Your task to perform on an android device: Go to ESPN.com Image 0: 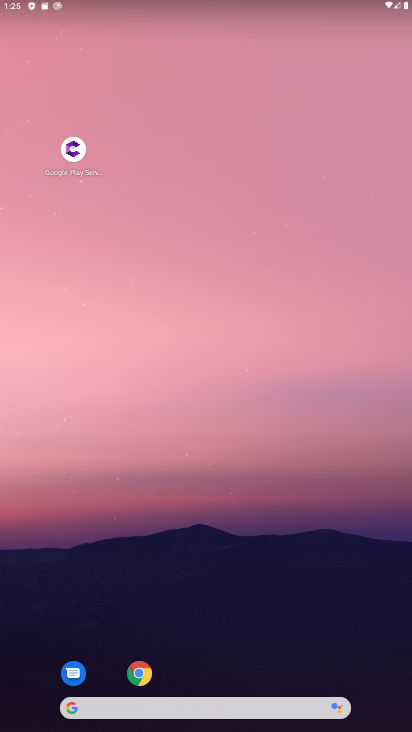
Step 0: drag from (295, 566) to (206, 44)
Your task to perform on an android device: Go to ESPN.com Image 1: 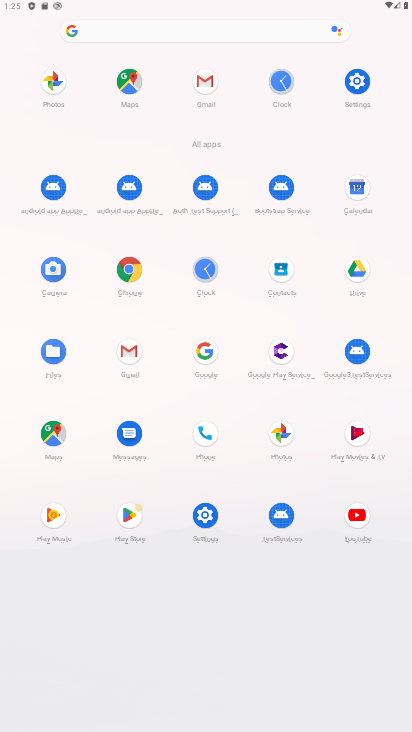
Step 1: click (127, 272)
Your task to perform on an android device: Go to ESPN.com Image 2: 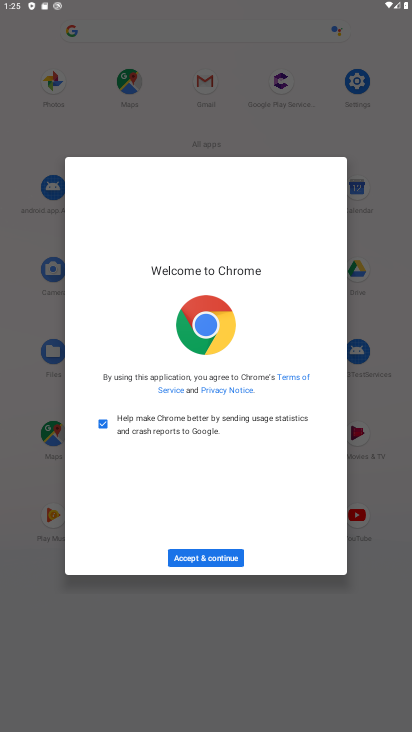
Step 2: click (234, 551)
Your task to perform on an android device: Go to ESPN.com Image 3: 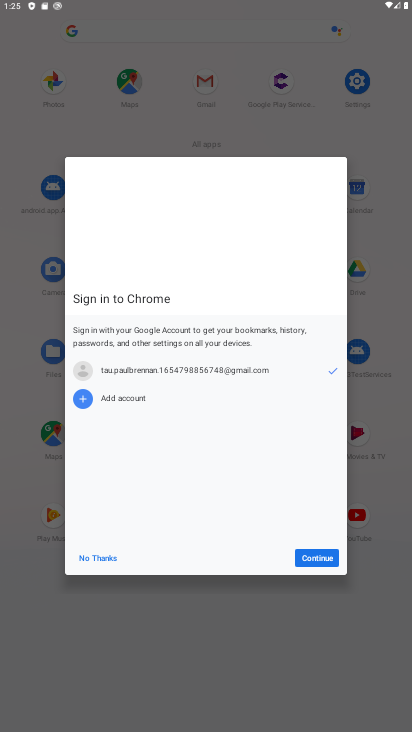
Step 3: click (104, 550)
Your task to perform on an android device: Go to ESPN.com Image 4: 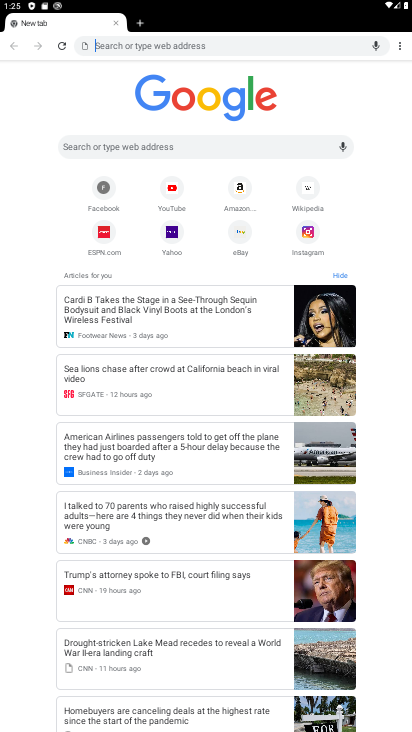
Step 4: click (79, 243)
Your task to perform on an android device: Go to ESPN.com Image 5: 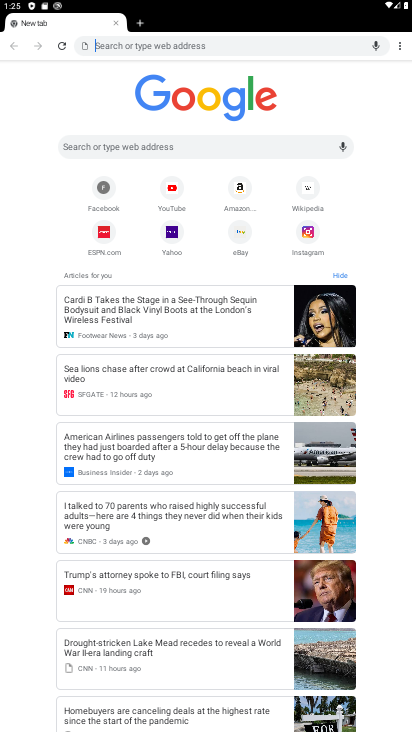
Step 5: click (106, 241)
Your task to perform on an android device: Go to ESPN.com Image 6: 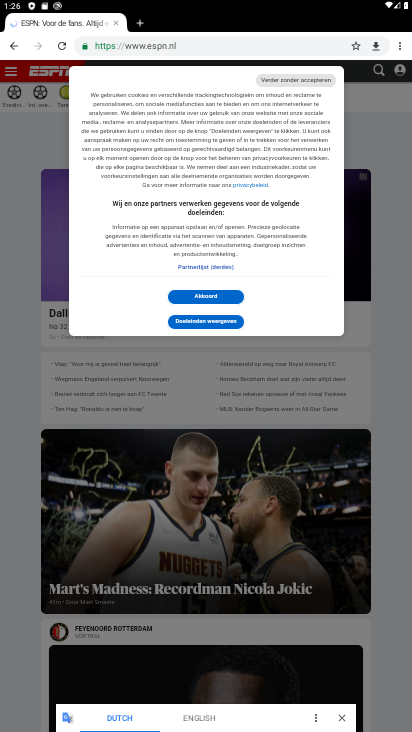
Step 6: task complete